Your task to perform on an android device: turn on sleep mode Image 0: 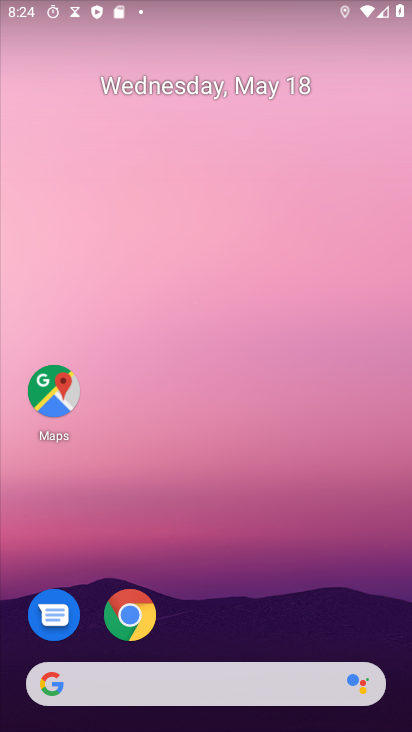
Step 0: drag from (254, 346) to (253, 216)
Your task to perform on an android device: turn on sleep mode Image 1: 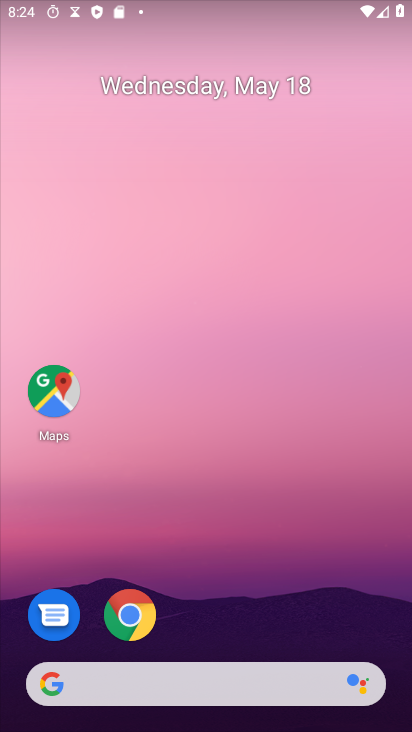
Step 1: drag from (180, 554) to (113, 159)
Your task to perform on an android device: turn on sleep mode Image 2: 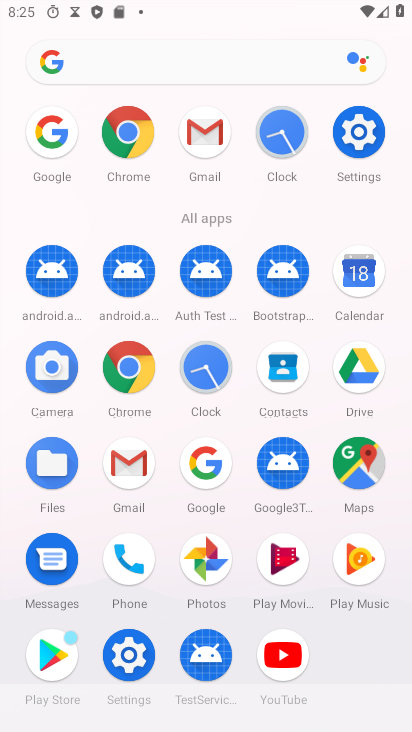
Step 2: click (112, 146)
Your task to perform on an android device: turn on sleep mode Image 3: 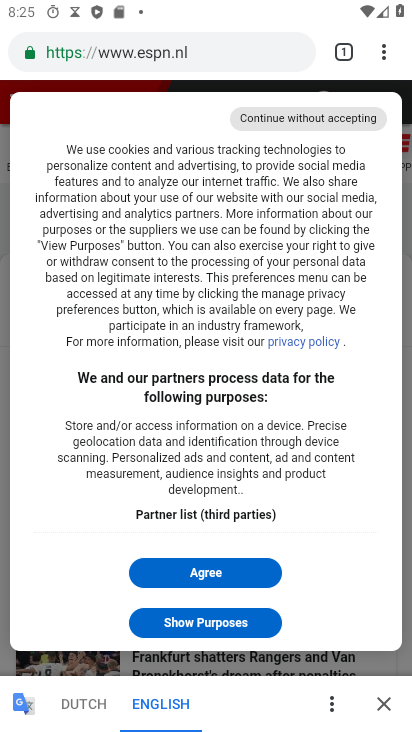
Step 3: press home button
Your task to perform on an android device: turn on sleep mode Image 4: 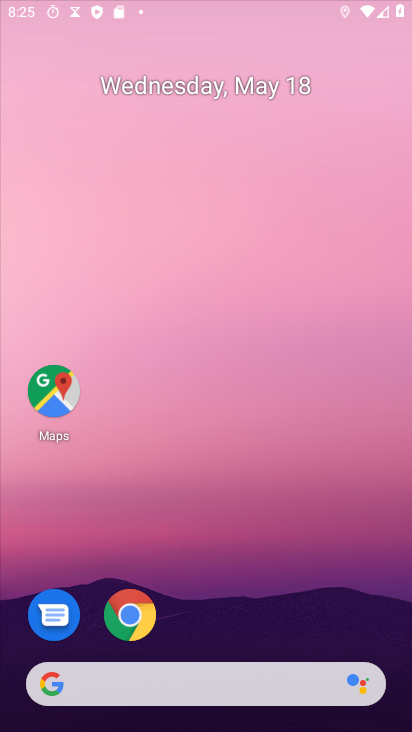
Step 4: drag from (278, 542) to (282, 95)
Your task to perform on an android device: turn on sleep mode Image 5: 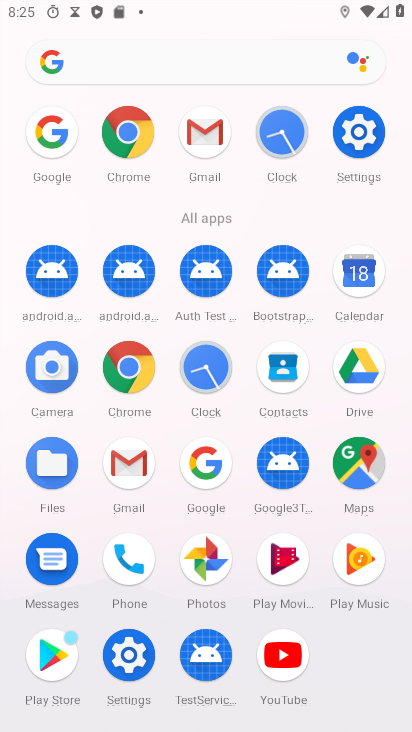
Step 5: click (374, 132)
Your task to perform on an android device: turn on sleep mode Image 6: 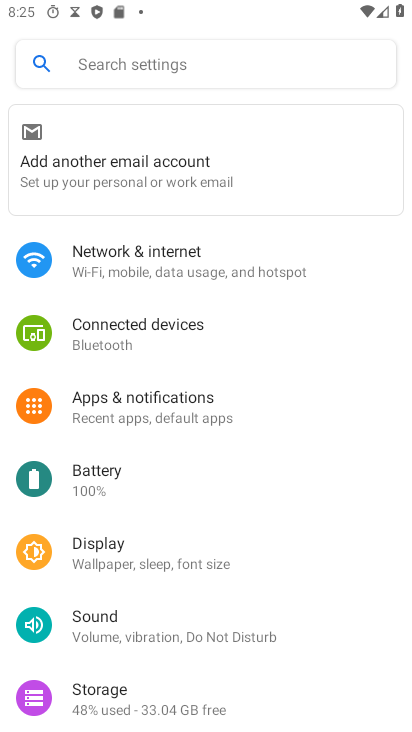
Step 6: click (163, 557)
Your task to perform on an android device: turn on sleep mode Image 7: 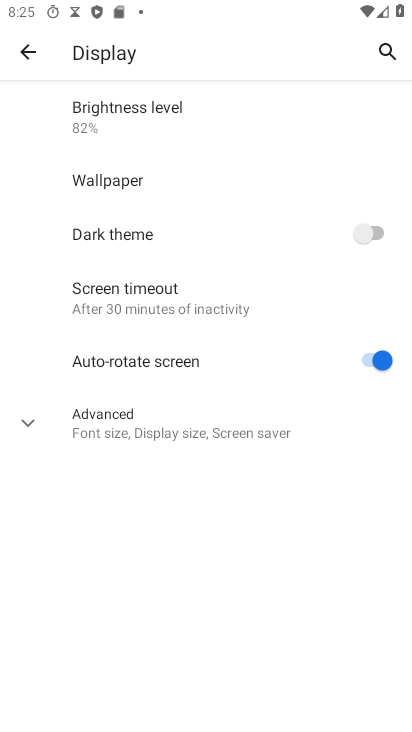
Step 7: click (176, 431)
Your task to perform on an android device: turn on sleep mode Image 8: 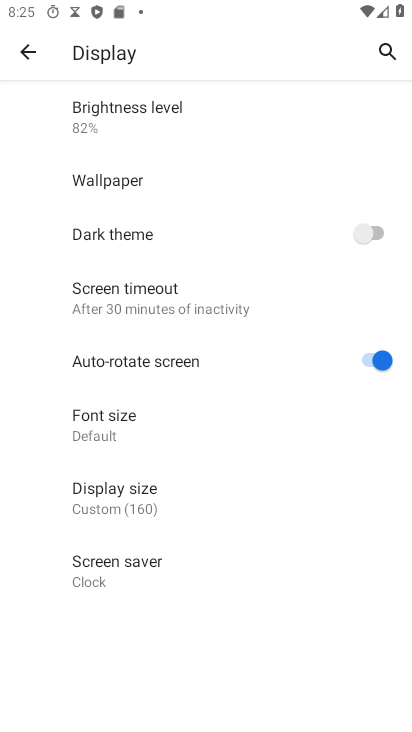
Step 8: task complete